Your task to perform on an android device: Go to CNN.com Image 0: 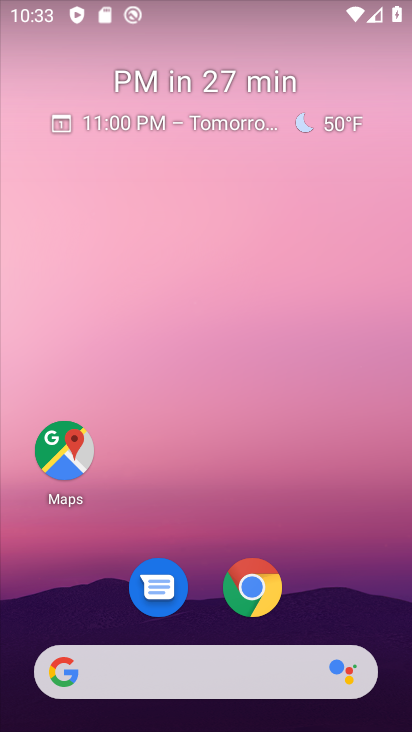
Step 0: click (239, 584)
Your task to perform on an android device: Go to CNN.com Image 1: 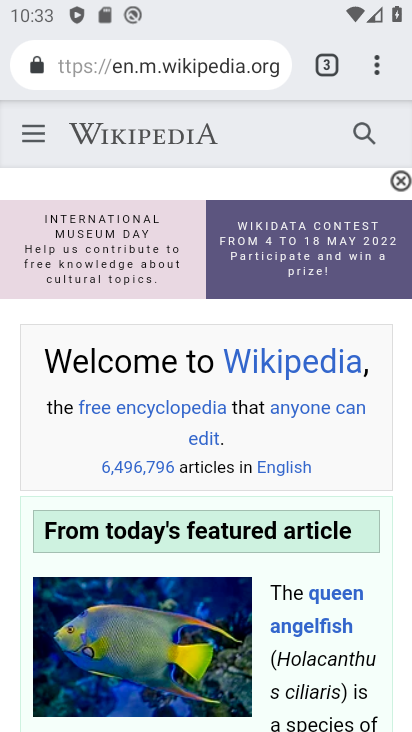
Step 1: click (325, 65)
Your task to perform on an android device: Go to CNN.com Image 2: 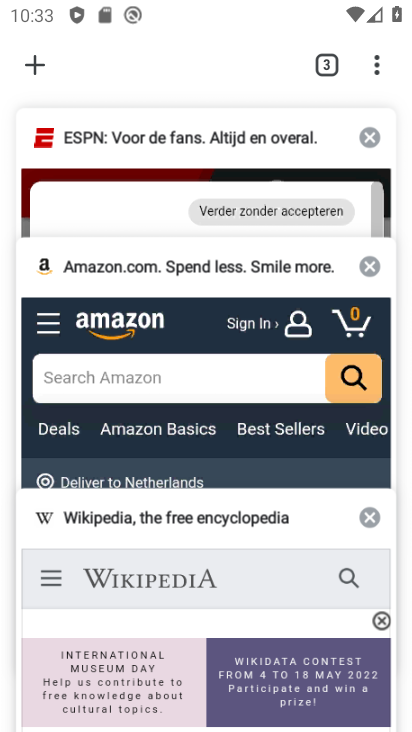
Step 2: click (30, 56)
Your task to perform on an android device: Go to CNN.com Image 3: 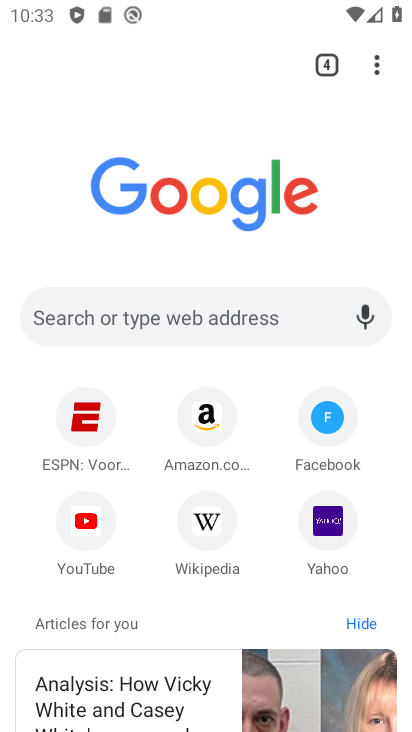
Step 3: click (136, 317)
Your task to perform on an android device: Go to CNN.com Image 4: 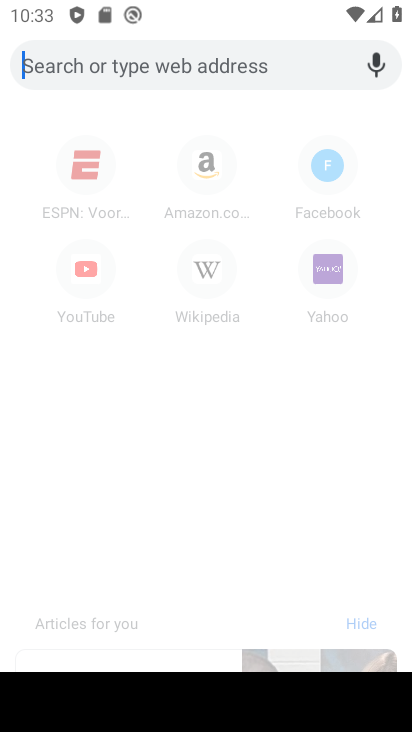
Step 4: type "cnn"
Your task to perform on an android device: Go to CNN.com Image 5: 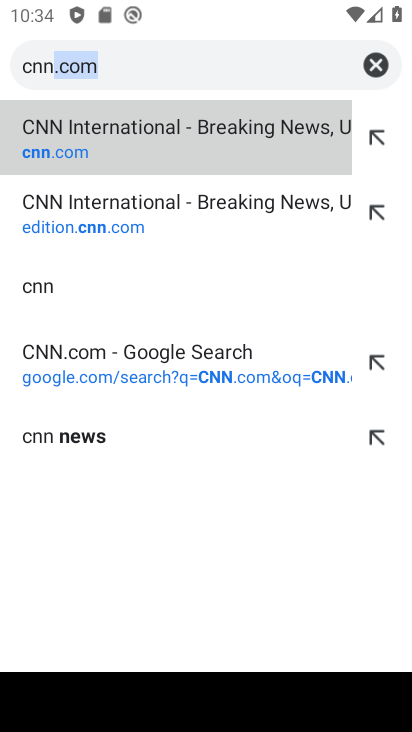
Step 5: click (111, 140)
Your task to perform on an android device: Go to CNN.com Image 6: 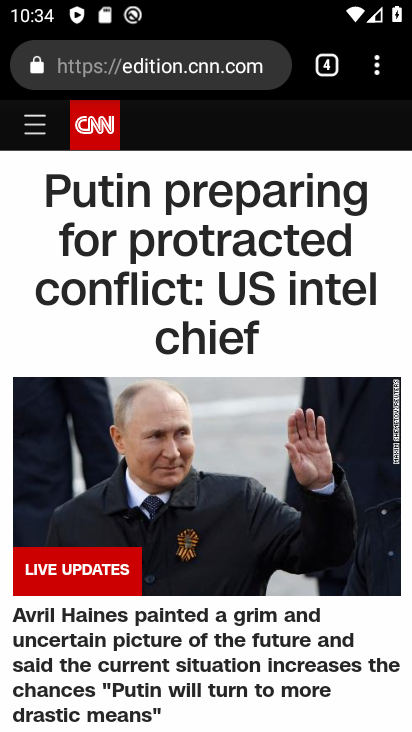
Step 6: task complete